Your task to perform on an android device: Search for pizza restaurants on Maps Image 0: 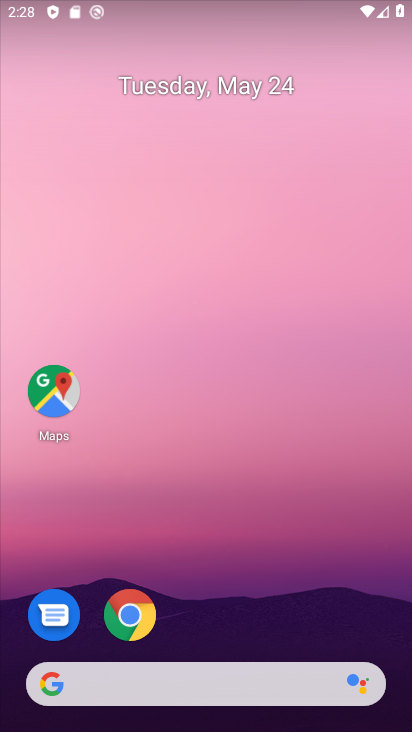
Step 0: drag from (263, 540) to (281, 99)
Your task to perform on an android device: Search for pizza restaurants on Maps Image 1: 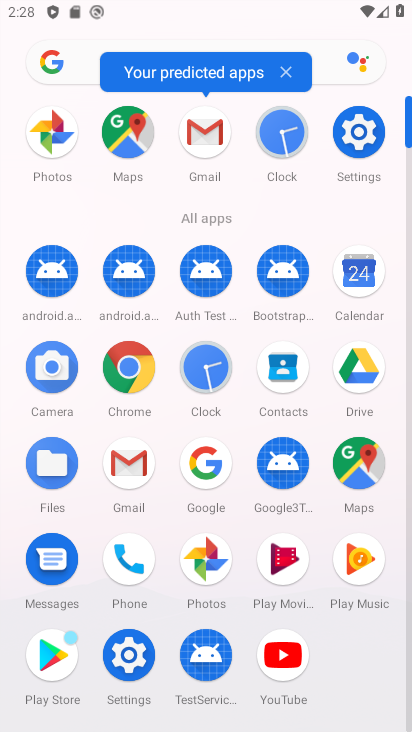
Step 1: click (355, 471)
Your task to perform on an android device: Search for pizza restaurants on Maps Image 2: 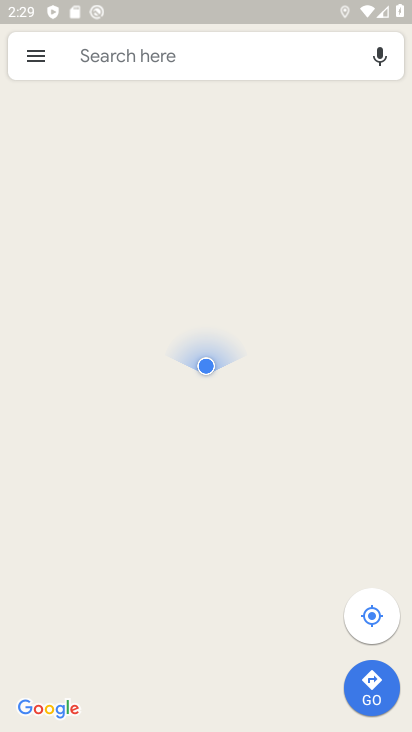
Step 2: click (209, 67)
Your task to perform on an android device: Search for pizza restaurants on Maps Image 3: 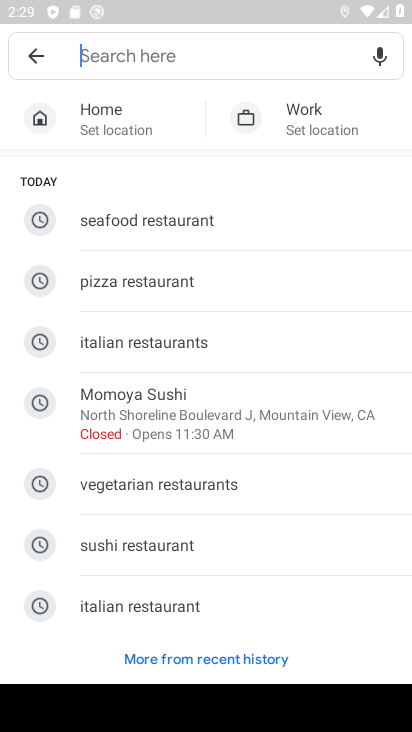
Step 3: click (227, 282)
Your task to perform on an android device: Search for pizza restaurants on Maps Image 4: 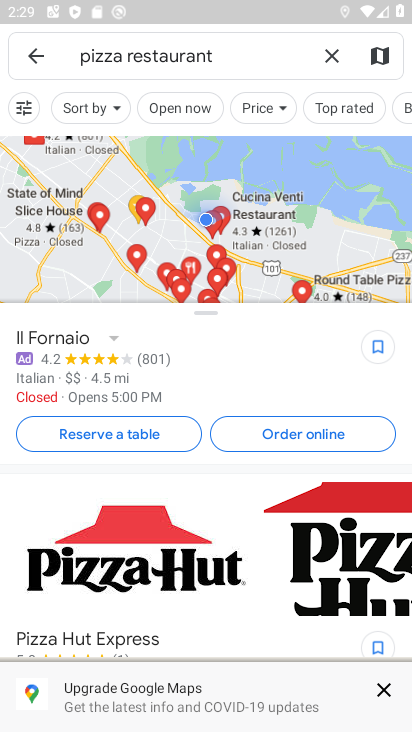
Step 4: task complete